Your task to perform on an android device: toggle pop-ups in chrome Image 0: 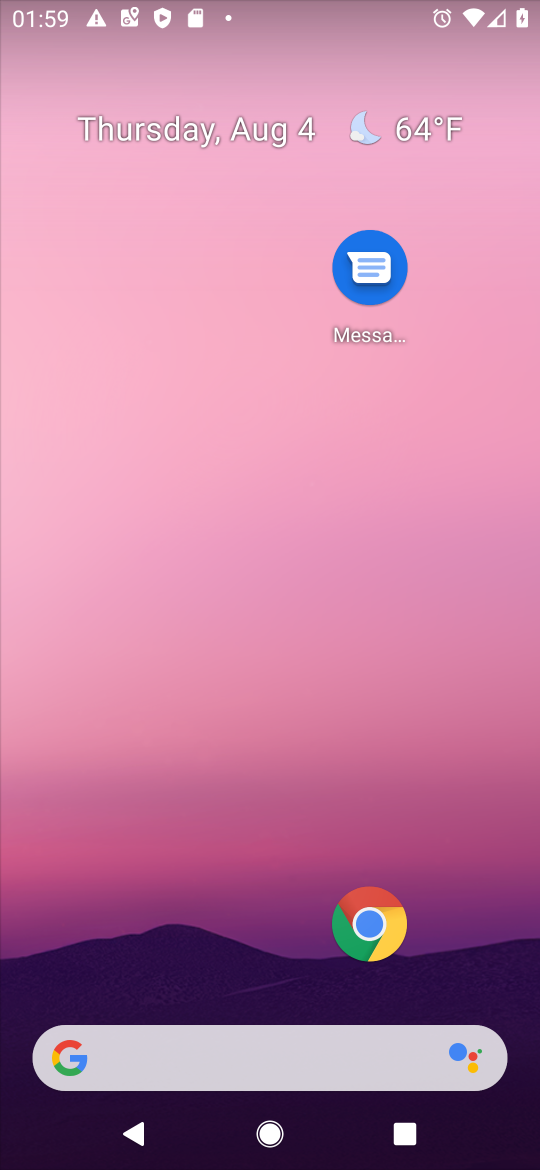
Step 0: click (370, 939)
Your task to perform on an android device: toggle pop-ups in chrome Image 1: 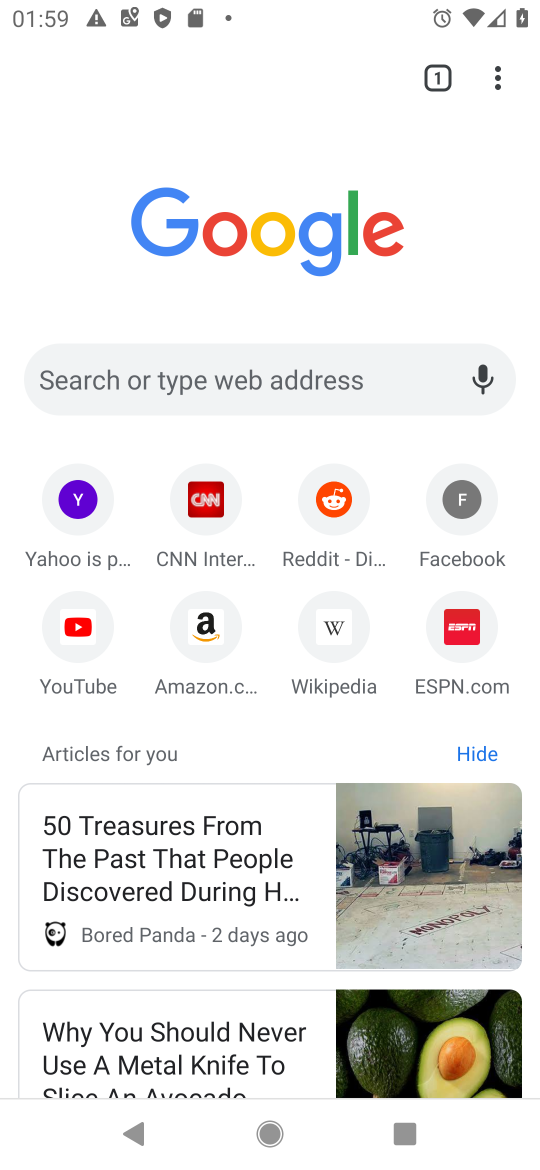
Step 1: click (128, 390)
Your task to perform on an android device: toggle pop-ups in chrome Image 2: 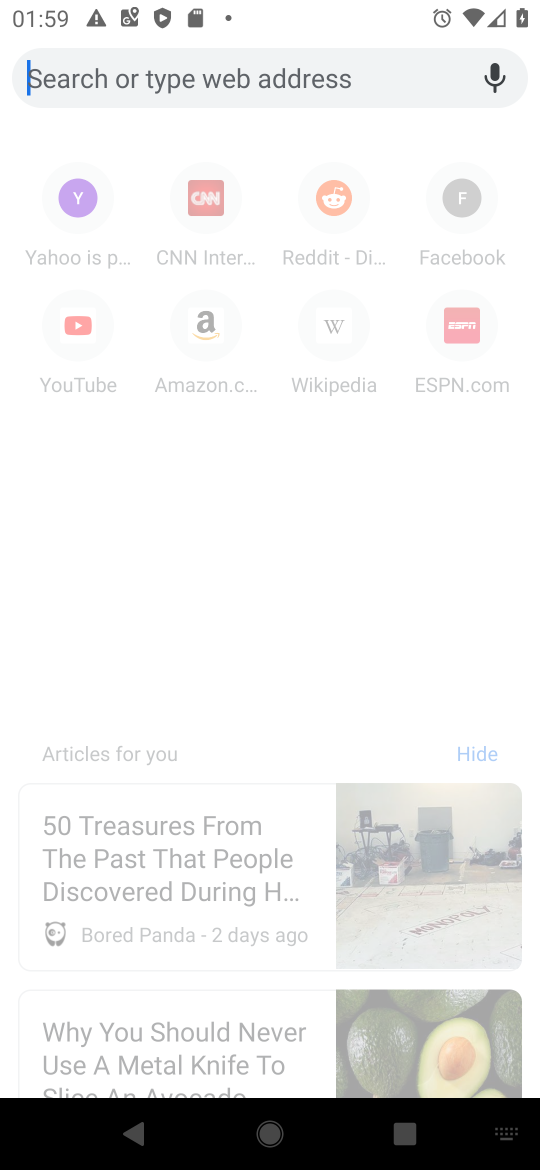
Step 2: click (151, 520)
Your task to perform on an android device: toggle pop-ups in chrome Image 3: 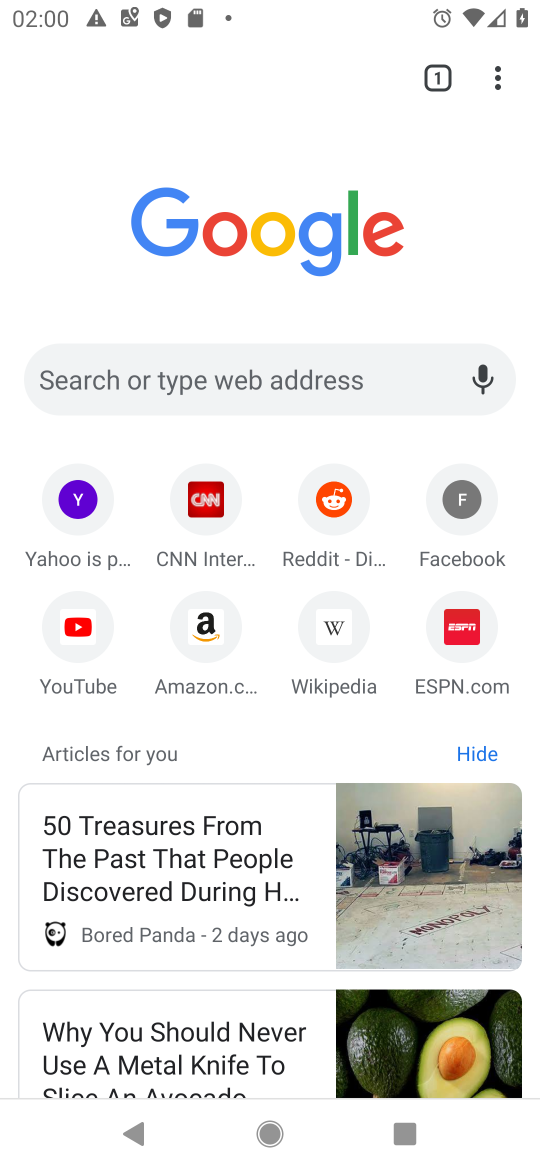
Step 3: click (494, 70)
Your task to perform on an android device: toggle pop-ups in chrome Image 4: 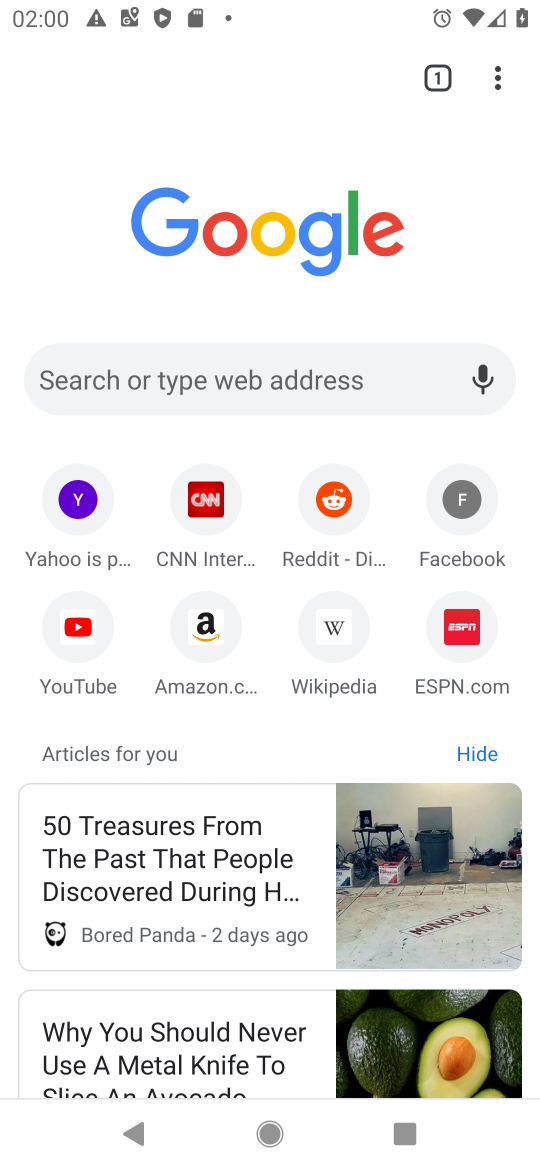
Step 4: click (494, 75)
Your task to perform on an android device: toggle pop-ups in chrome Image 5: 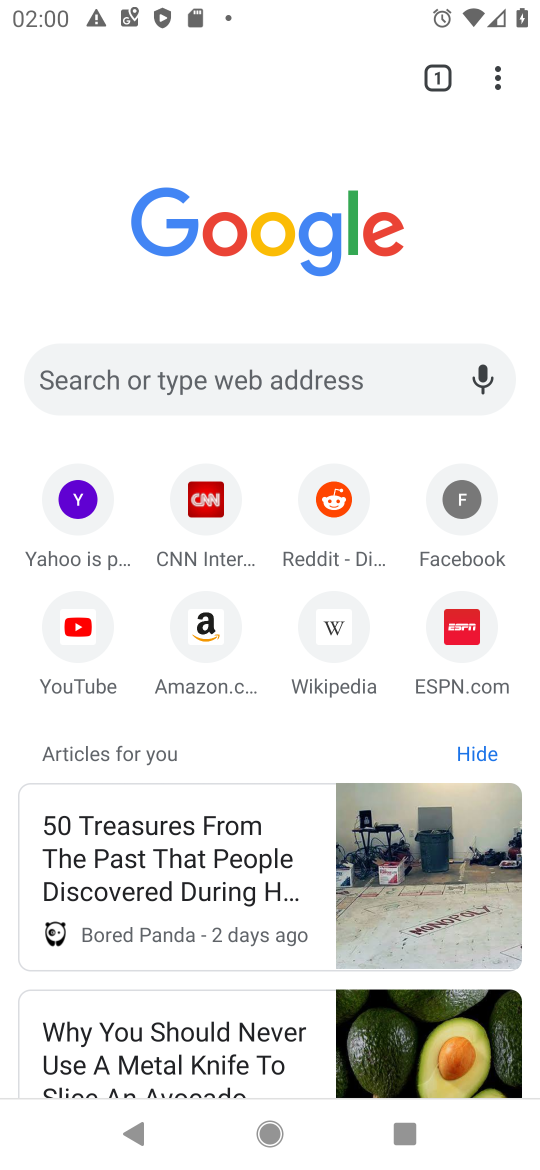
Step 5: click (493, 72)
Your task to perform on an android device: toggle pop-ups in chrome Image 6: 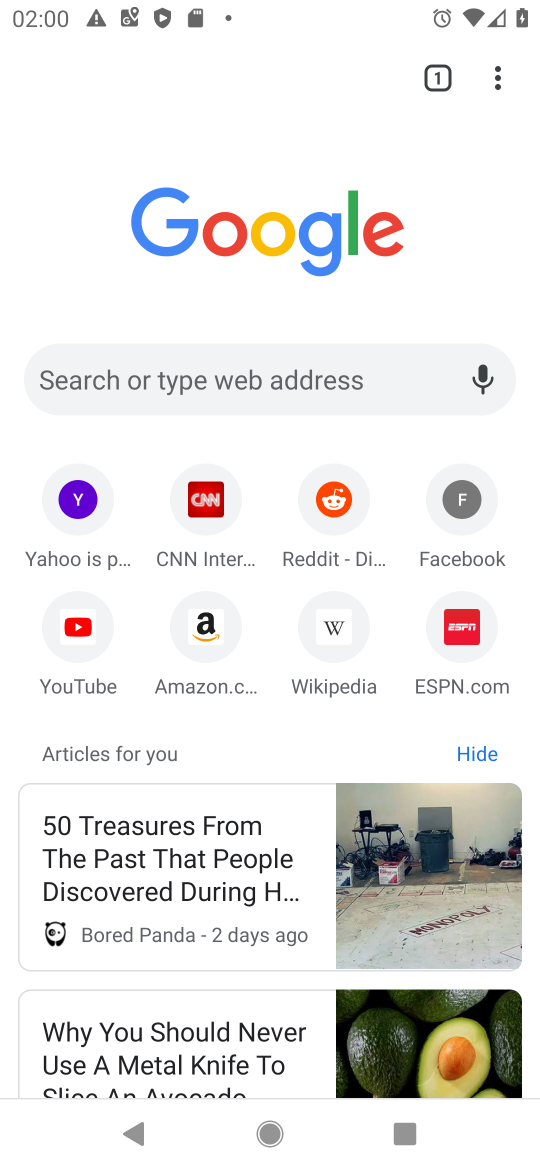
Step 6: click (481, 85)
Your task to perform on an android device: toggle pop-ups in chrome Image 7: 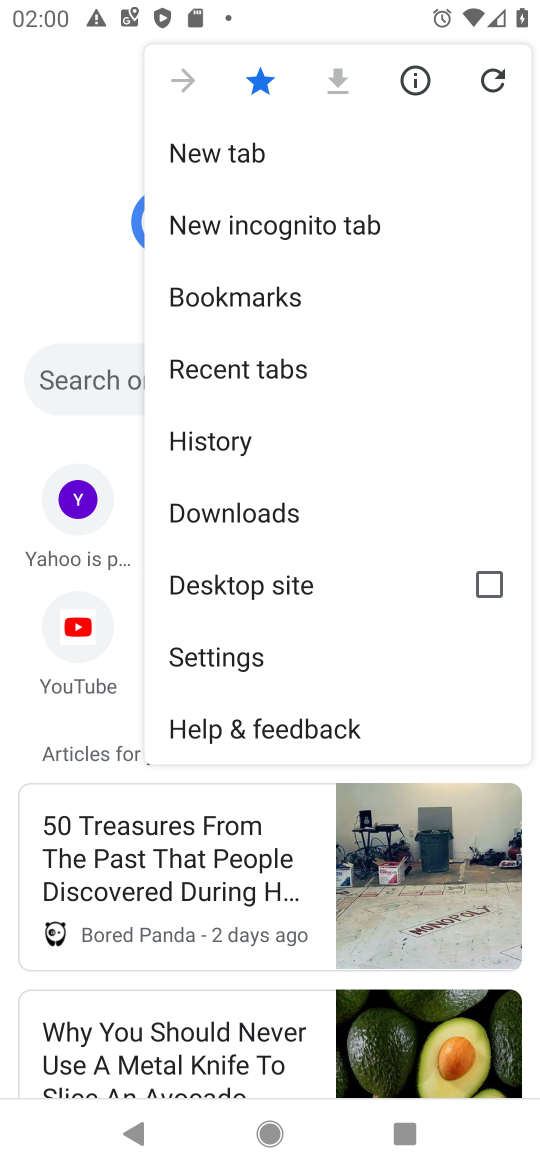
Step 7: click (223, 652)
Your task to perform on an android device: toggle pop-ups in chrome Image 8: 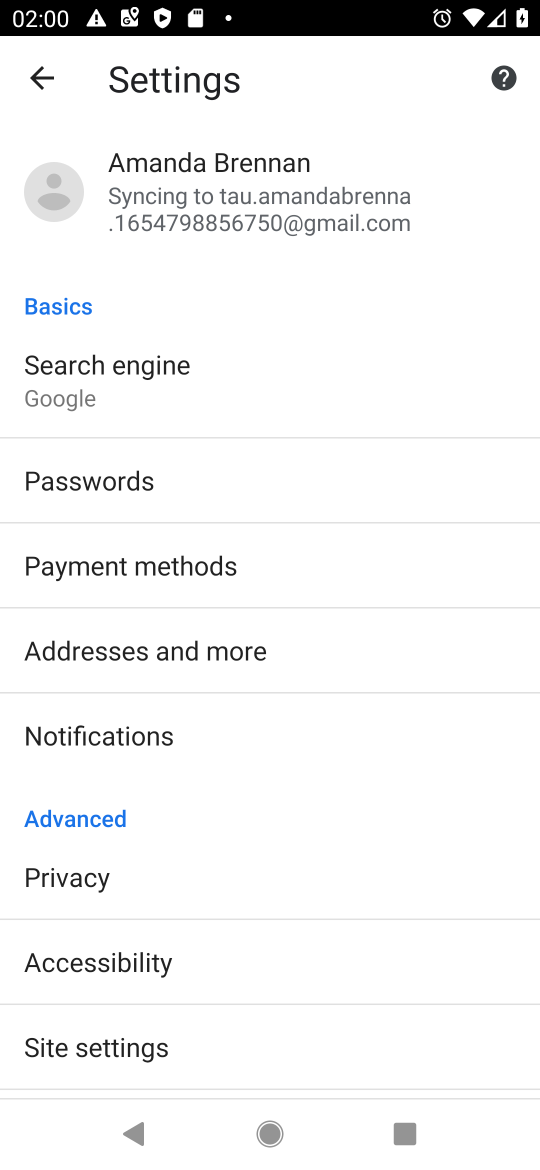
Step 8: drag from (255, 937) to (324, 545)
Your task to perform on an android device: toggle pop-ups in chrome Image 9: 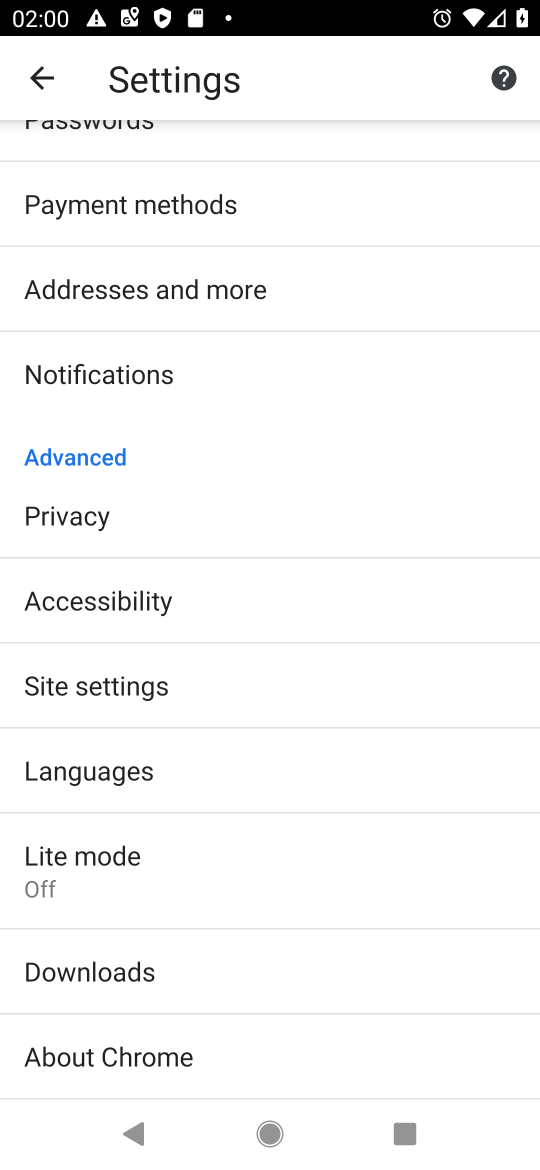
Step 9: click (105, 679)
Your task to perform on an android device: toggle pop-ups in chrome Image 10: 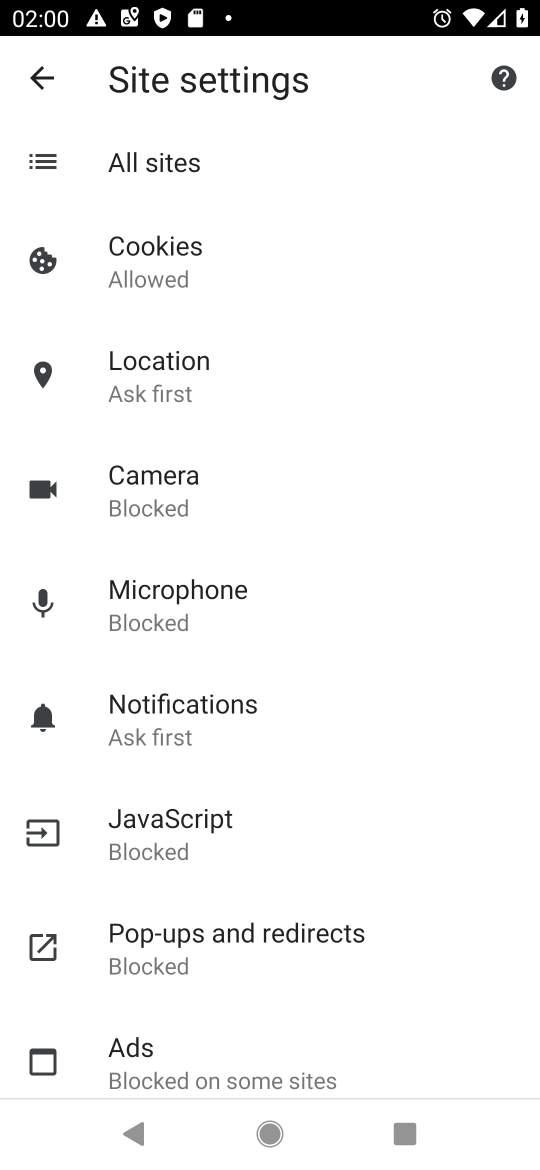
Step 10: click (211, 956)
Your task to perform on an android device: toggle pop-ups in chrome Image 11: 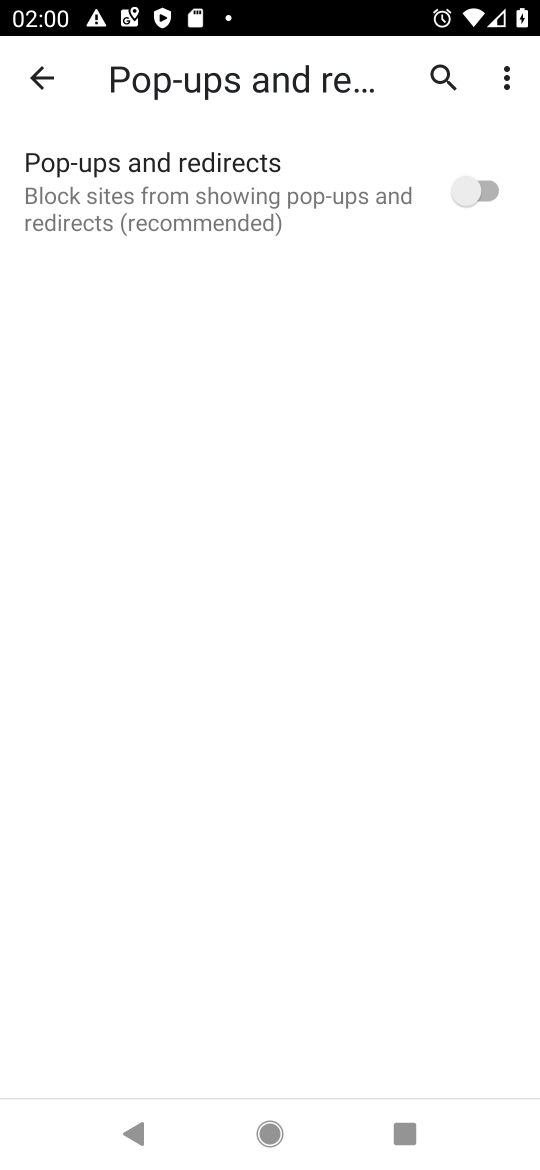
Step 11: click (493, 192)
Your task to perform on an android device: toggle pop-ups in chrome Image 12: 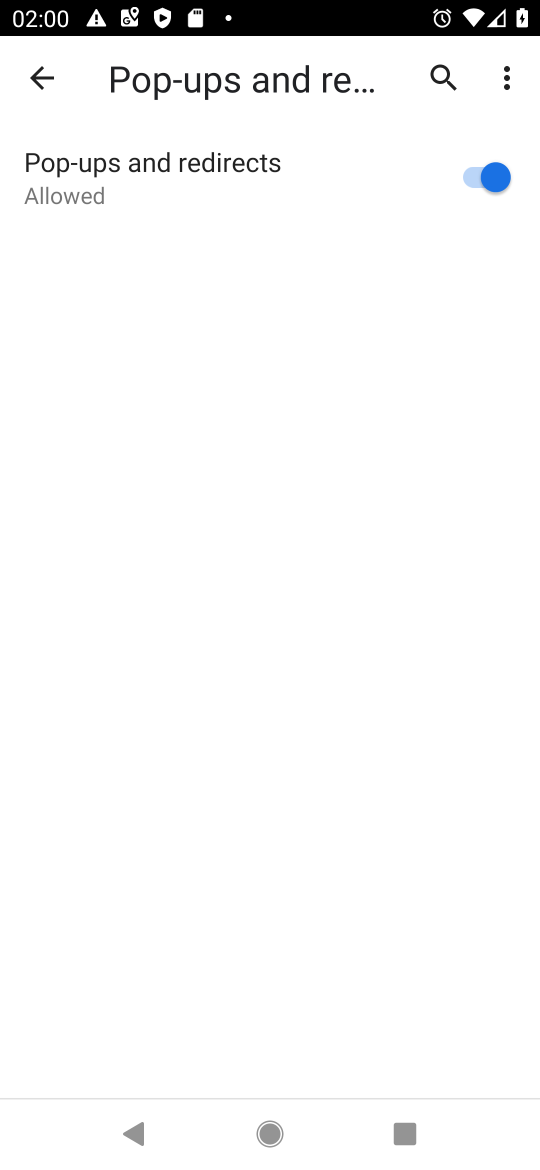
Step 12: task complete